Your task to perform on an android device: Open sound settings Image 0: 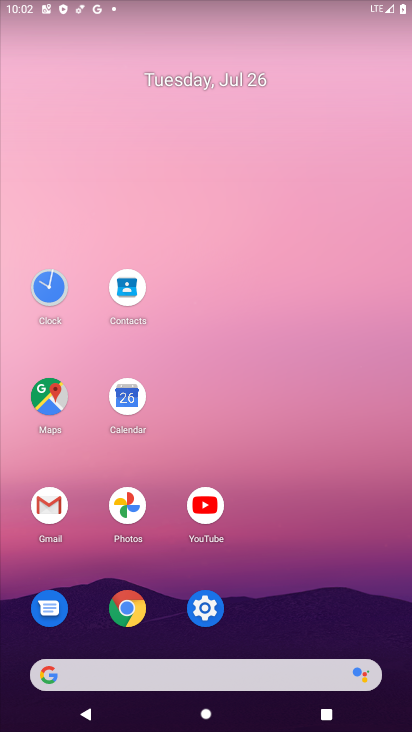
Step 0: click (202, 605)
Your task to perform on an android device: Open sound settings Image 1: 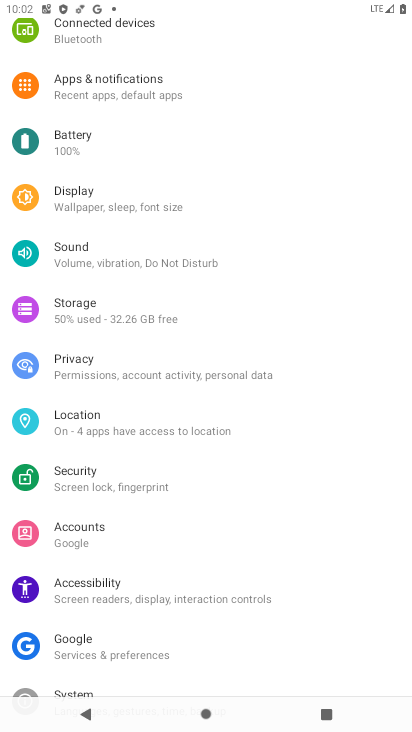
Step 1: click (74, 248)
Your task to perform on an android device: Open sound settings Image 2: 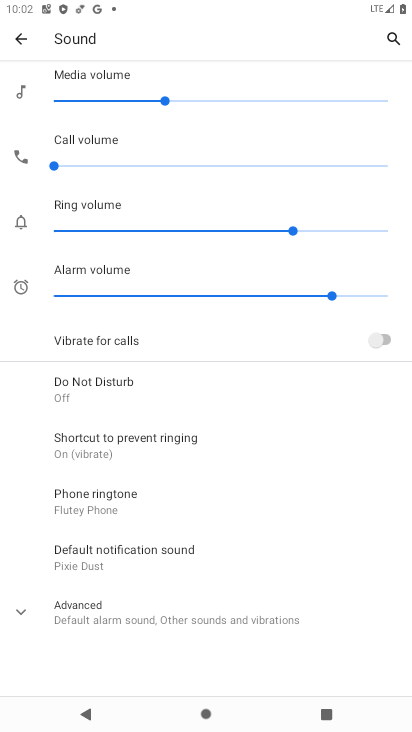
Step 2: task complete